Your task to perform on an android device: Open ESPN.com Image 0: 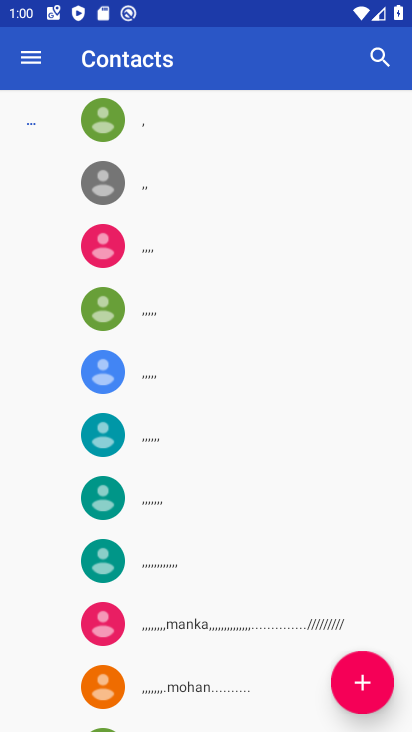
Step 0: press home button
Your task to perform on an android device: Open ESPN.com Image 1: 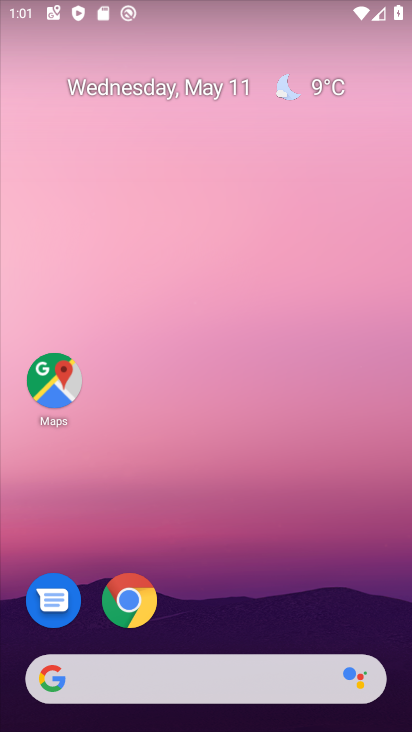
Step 1: click (252, 680)
Your task to perform on an android device: Open ESPN.com Image 2: 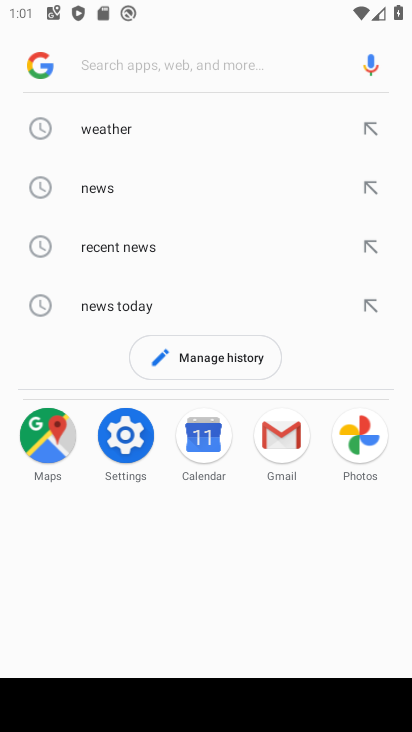
Step 2: type "espn.com"
Your task to perform on an android device: Open ESPN.com Image 3: 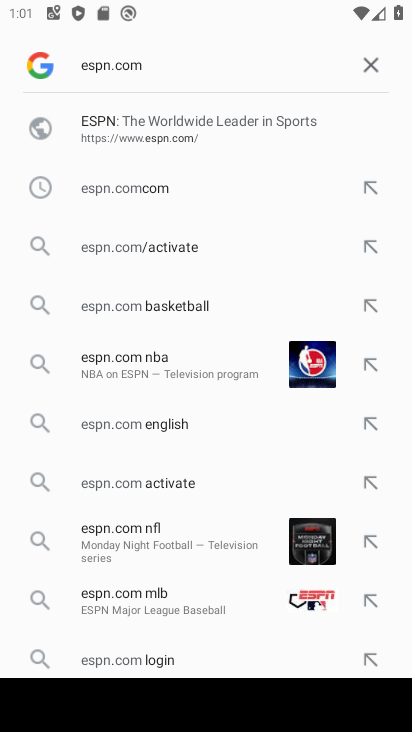
Step 3: click (180, 131)
Your task to perform on an android device: Open ESPN.com Image 4: 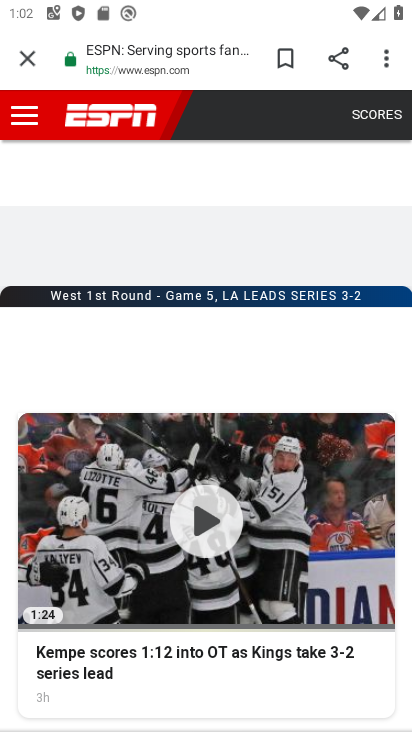
Step 4: task complete